Your task to perform on an android device: Open the map Image 0: 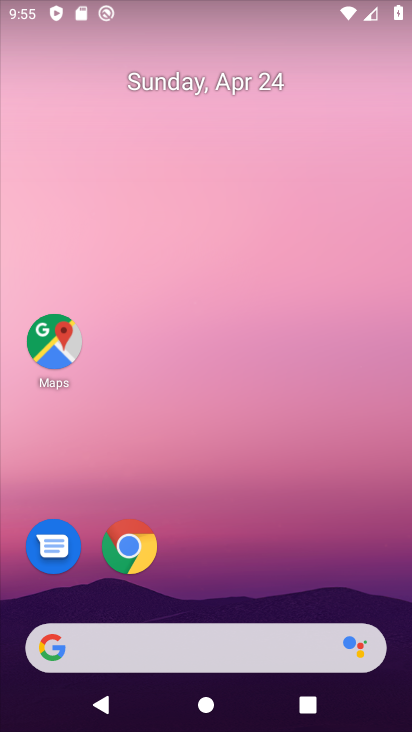
Step 0: click (62, 354)
Your task to perform on an android device: Open the map Image 1: 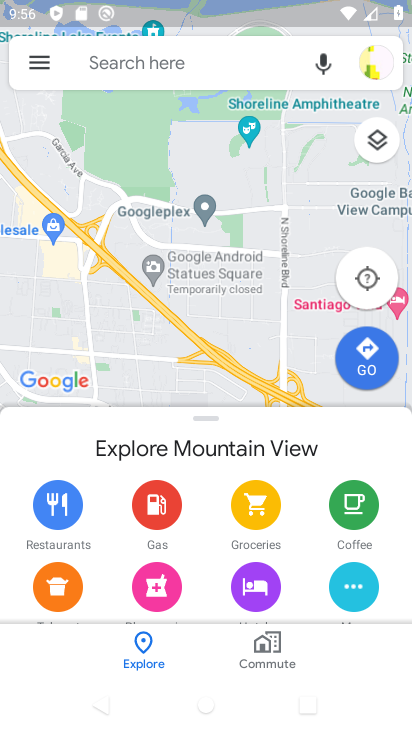
Step 1: task complete